Your task to perform on an android device: move an email to a new category in the gmail app Image 0: 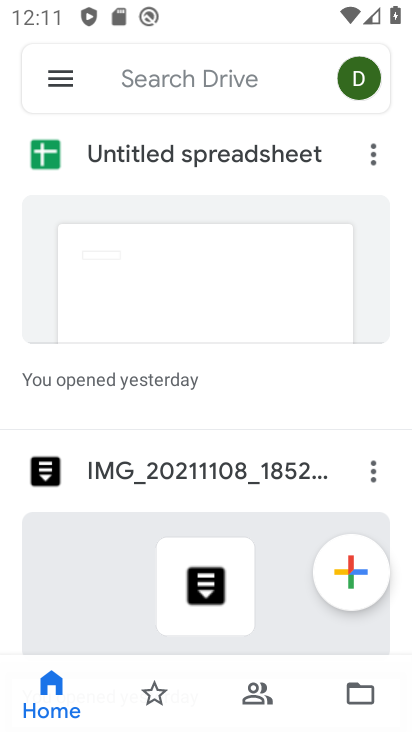
Step 0: press home button
Your task to perform on an android device: move an email to a new category in the gmail app Image 1: 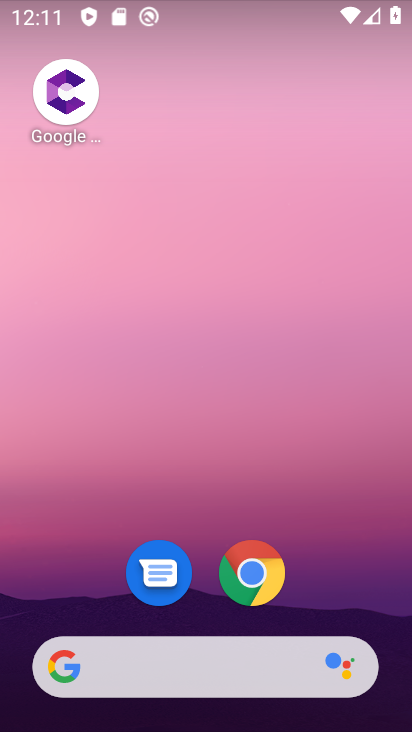
Step 1: drag from (184, 620) to (196, 231)
Your task to perform on an android device: move an email to a new category in the gmail app Image 2: 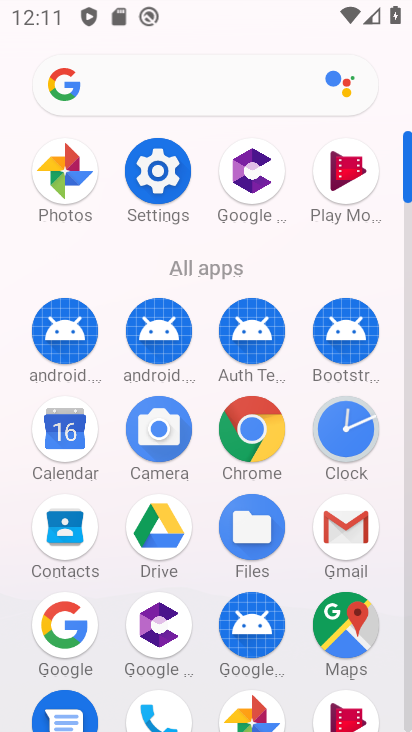
Step 2: click (353, 519)
Your task to perform on an android device: move an email to a new category in the gmail app Image 3: 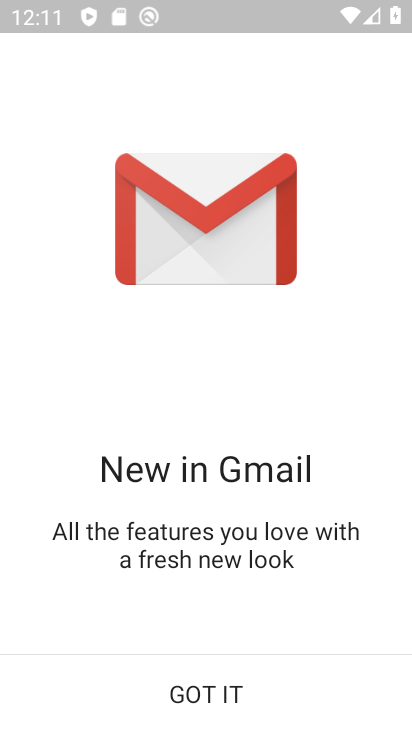
Step 3: click (206, 698)
Your task to perform on an android device: move an email to a new category in the gmail app Image 4: 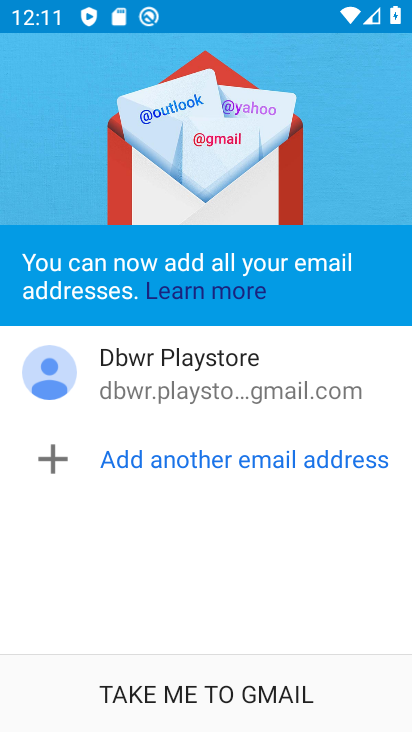
Step 4: click (206, 698)
Your task to perform on an android device: move an email to a new category in the gmail app Image 5: 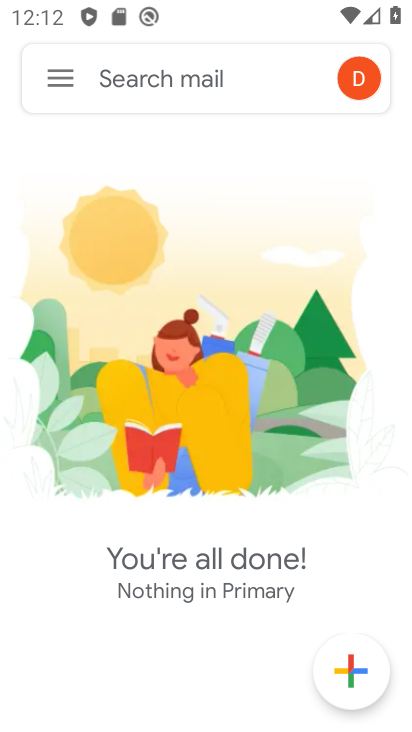
Step 5: task complete